Your task to perform on an android device: Go to eBay Image 0: 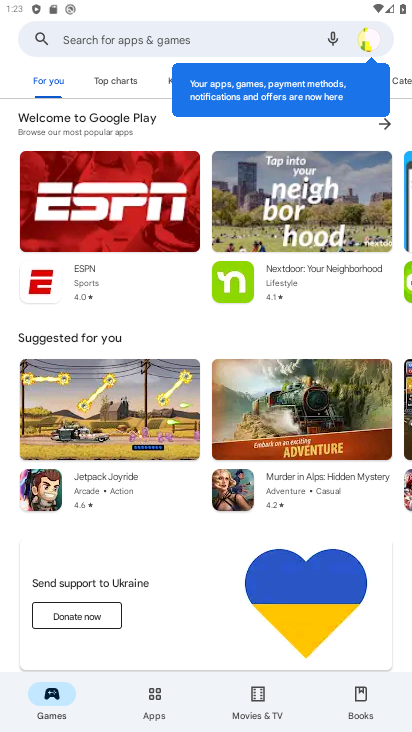
Step 0: press home button
Your task to perform on an android device: Go to eBay Image 1: 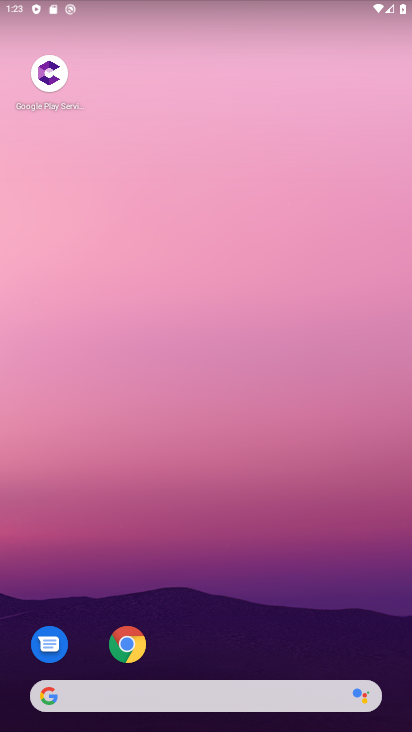
Step 1: drag from (354, 614) to (283, 163)
Your task to perform on an android device: Go to eBay Image 2: 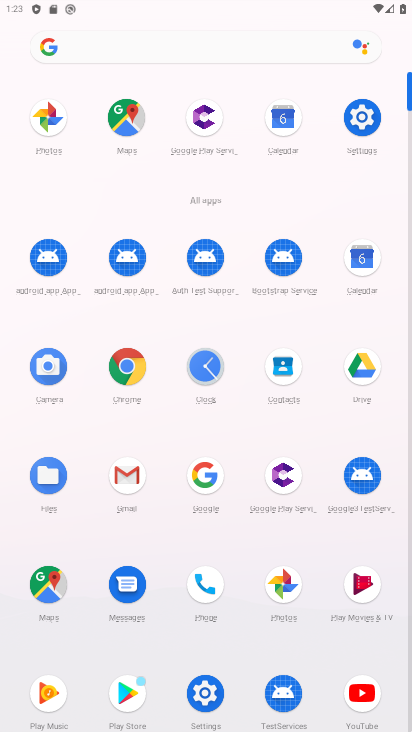
Step 2: click (138, 382)
Your task to perform on an android device: Go to eBay Image 3: 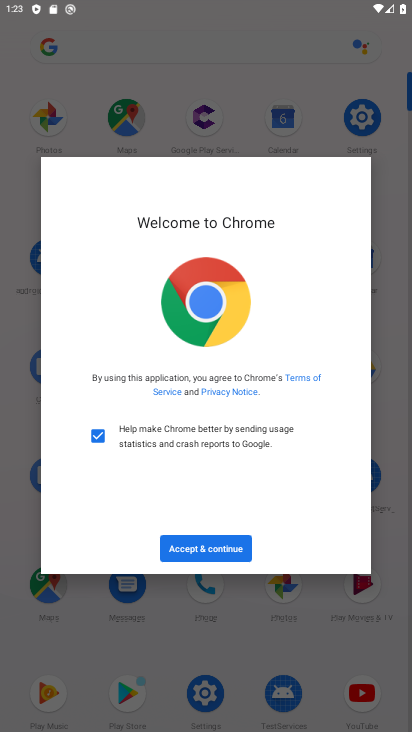
Step 3: click (206, 542)
Your task to perform on an android device: Go to eBay Image 4: 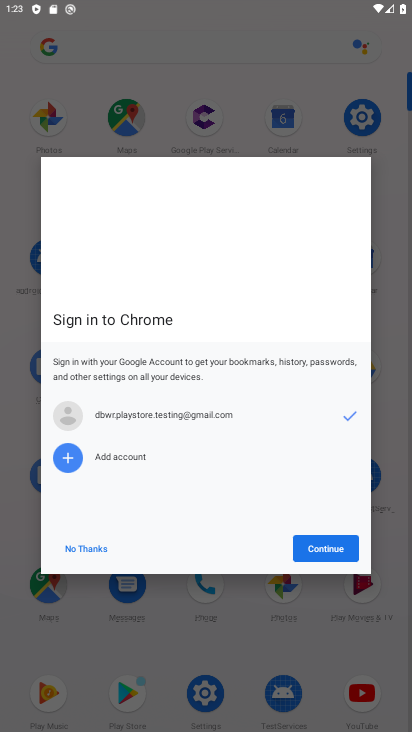
Step 4: click (333, 544)
Your task to perform on an android device: Go to eBay Image 5: 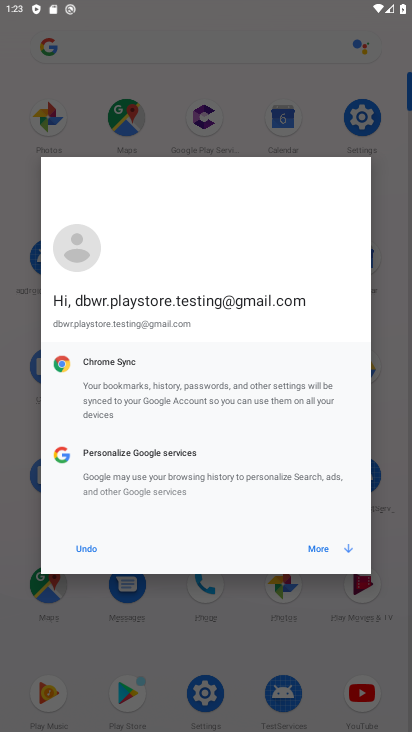
Step 5: click (317, 556)
Your task to perform on an android device: Go to eBay Image 6: 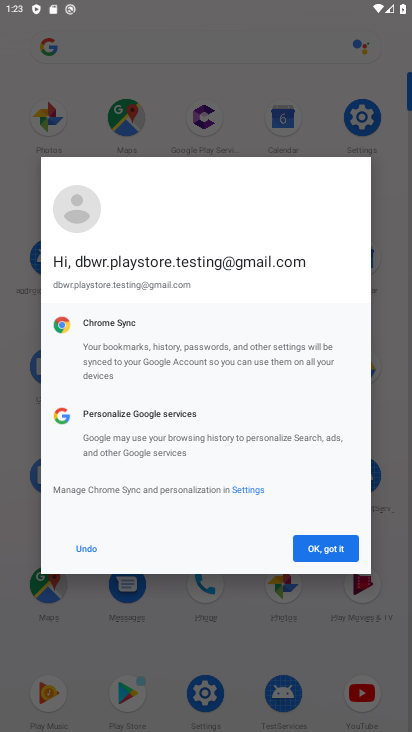
Step 6: click (316, 557)
Your task to perform on an android device: Go to eBay Image 7: 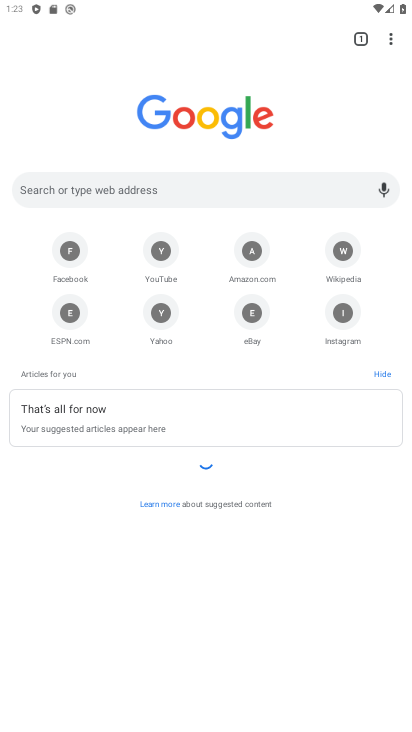
Step 7: click (196, 190)
Your task to perform on an android device: Go to eBay Image 8: 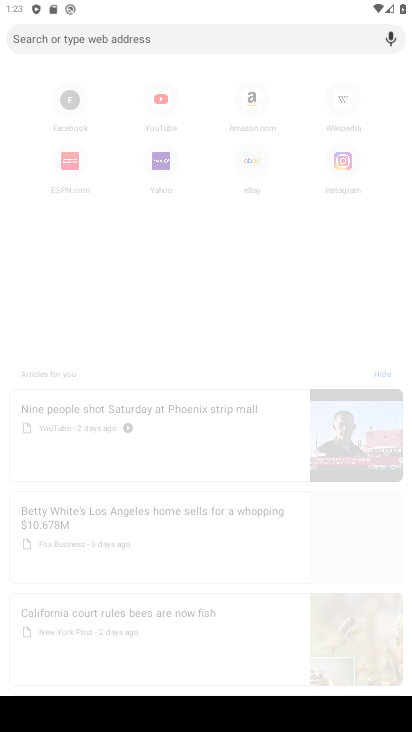
Step 8: type "ebay"
Your task to perform on an android device: Go to eBay Image 9: 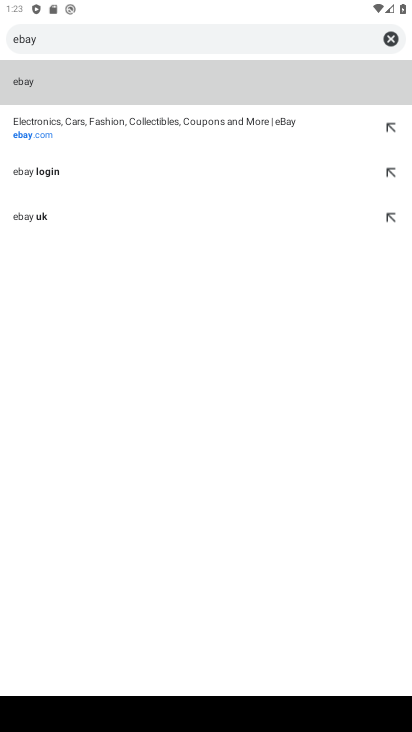
Step 9: click (32, 90)
Your task to perform on an android device: Go to eBay Image 10: 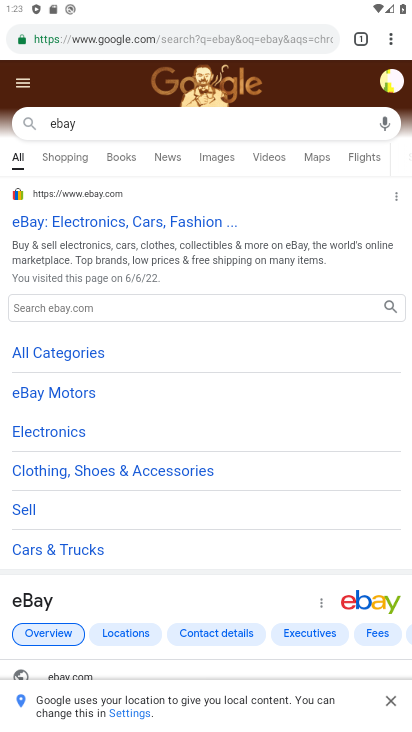
Step 10: task complete